Your task to perform on an android device: Open display settings Image 0: 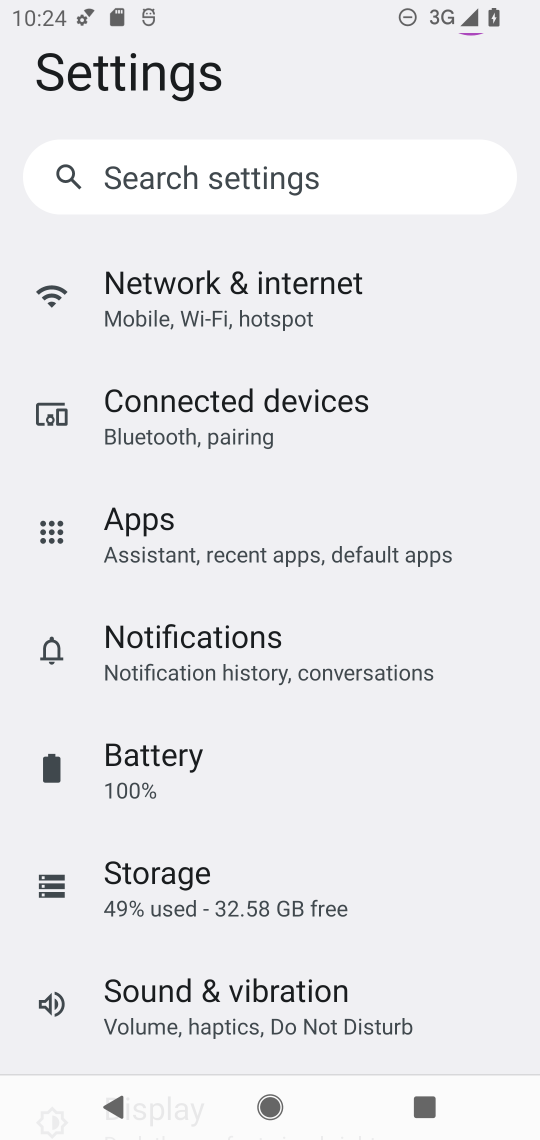
Step 0: drag from (221, 824) to (221, 322)
Your task to perform on an android device: Open display settings Image 1: 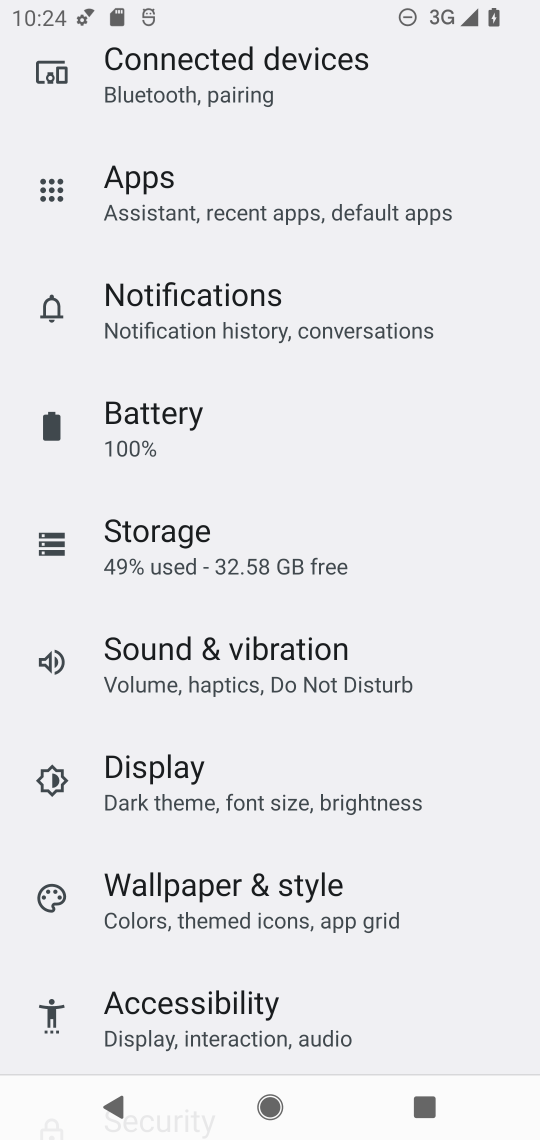
Step 1: click (183, 814)
Your task to perform on an android device: Open display settings Image 2: 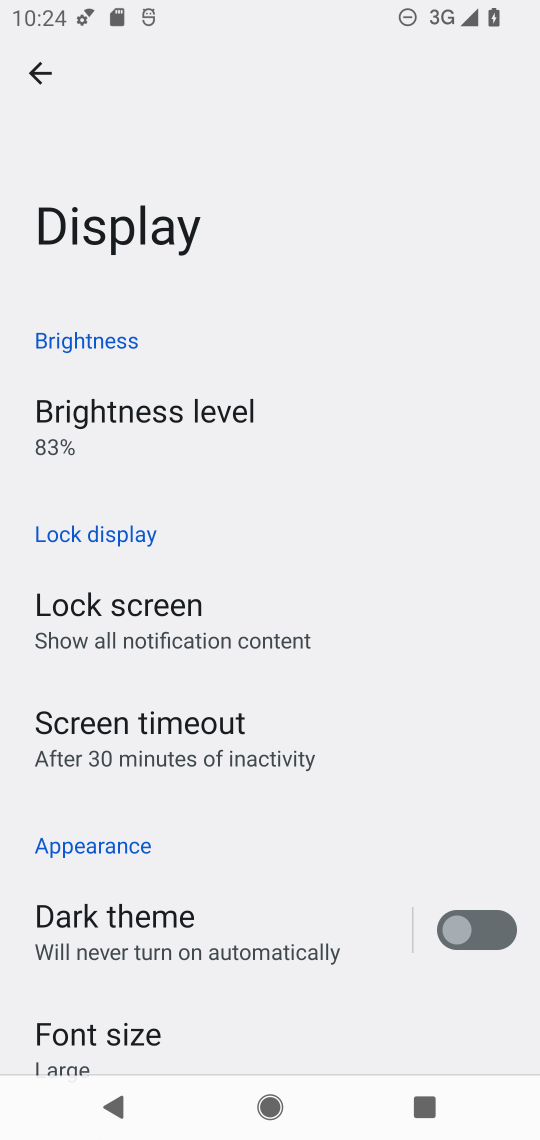
Step 2: task complete